Your task to perform on an android device: What's the weather? Image 0: 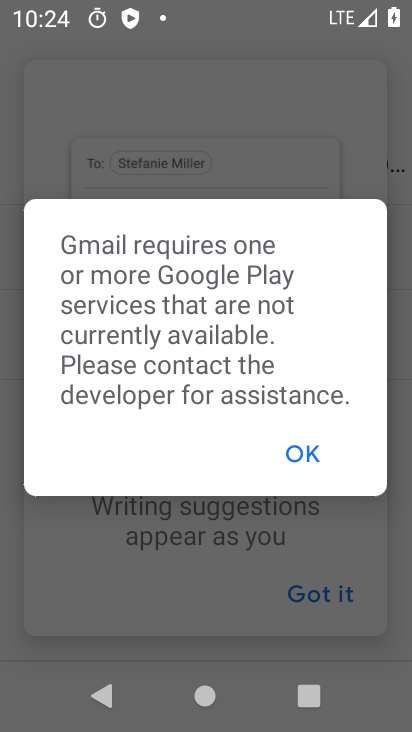
Step 0: press home button
Your task to perform on an android device: What's the weather? Image 1: 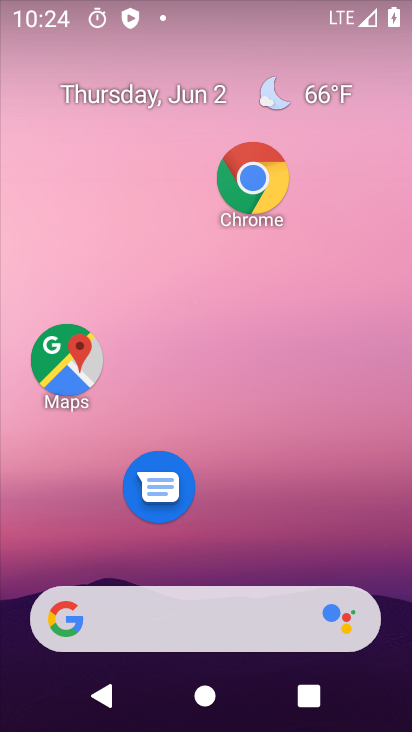
Step 1: drag from (242, 728) to (242, 173)
Your task to perform on an android device: What's the weather? Image 2: 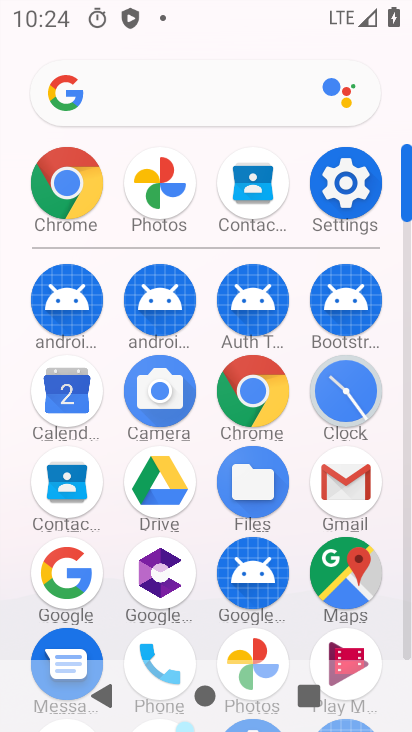
Step 2: click (66, 581)
Your task to perform on an android device: What's the weather? Image 3: 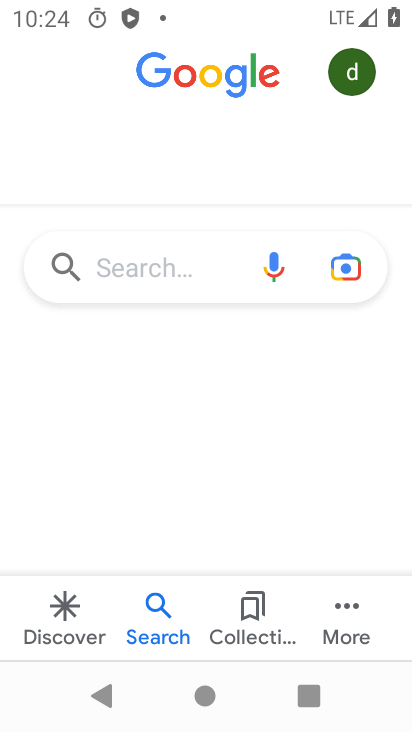
Step 3: click (198, 267)
Your task to perform on an android device: What's the weather? Image 4: 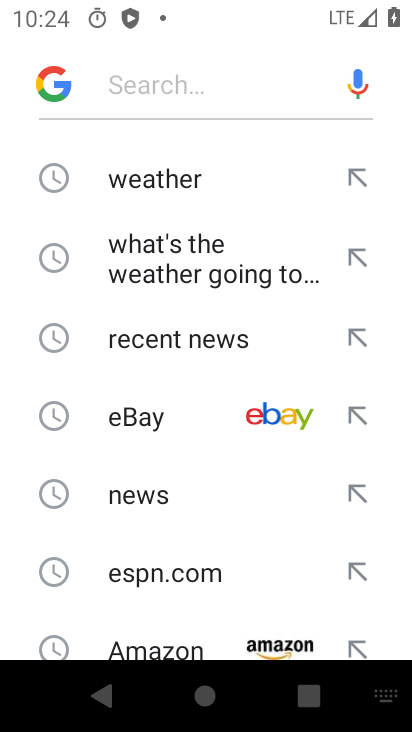
Step 4: click (156, 182)
Your task to perform on an android device: What's the weather? Image 5: 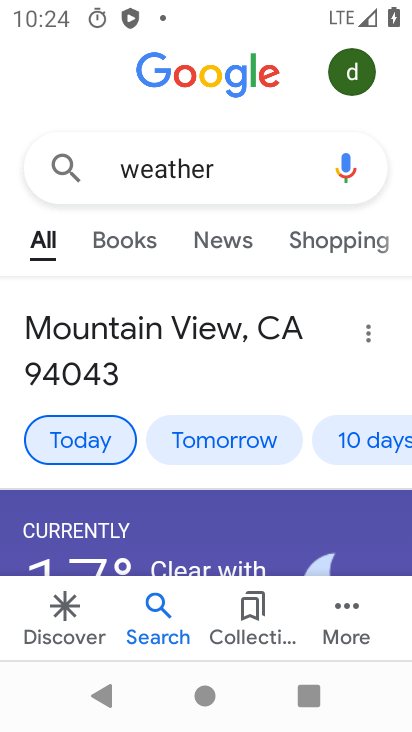
Step 5: click (84, 448)
Your task to perform on an android device: What's the weather? Image 6: 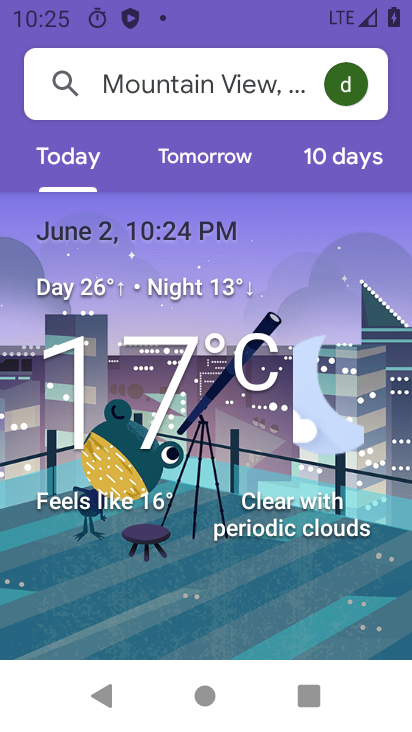
Step 6: task complete